Your task to perform on an android device: What's on my calendar tomorrow? Image 0: 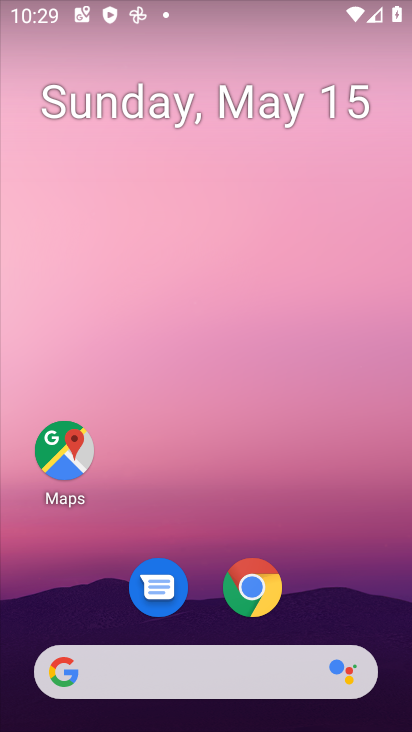
Step 0: drag from (392, 641) to (325, 138)
Your task to perform on an android device: What's on my calendar tomorrow? Image 1: 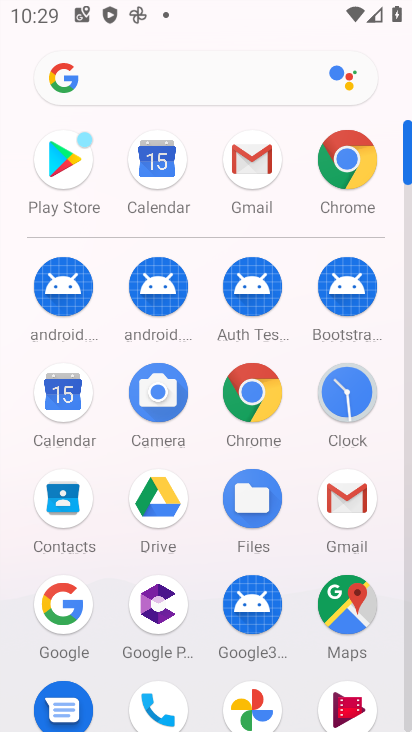
Step 1: click (63, 408)
Your task to perform on an android device: What's on my calendar tomorrow? Image 2: 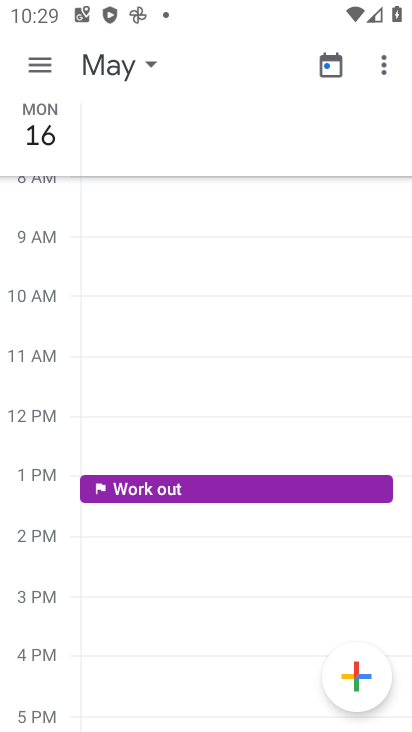
Step 2: click (104, 76)
Your task to perform on an android device: What's on my calendar tomorrow? Image 3: 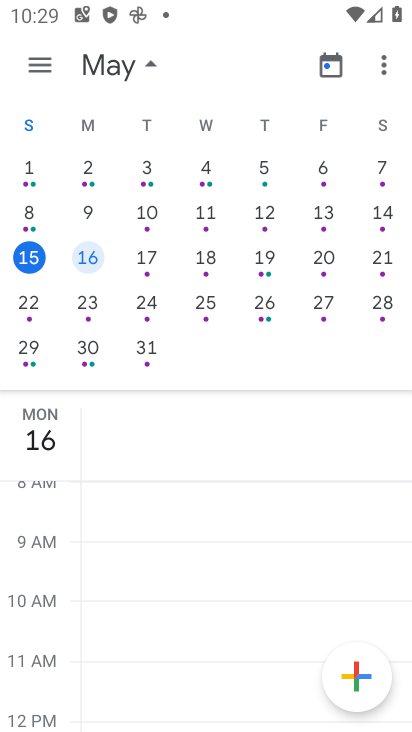
Step 3: click (149, 260)
Your task to perform on an android device: What's on my calendar tomorrow? Image 4: 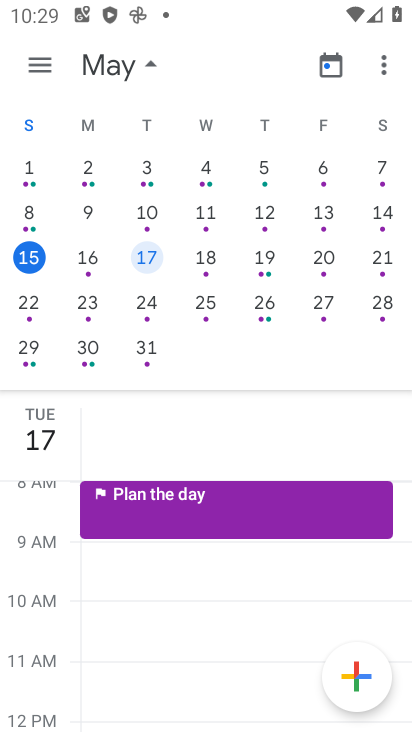
Step 4: task complete